Your task to perform on an android device: open a bookmark in the chrome app Image 0: 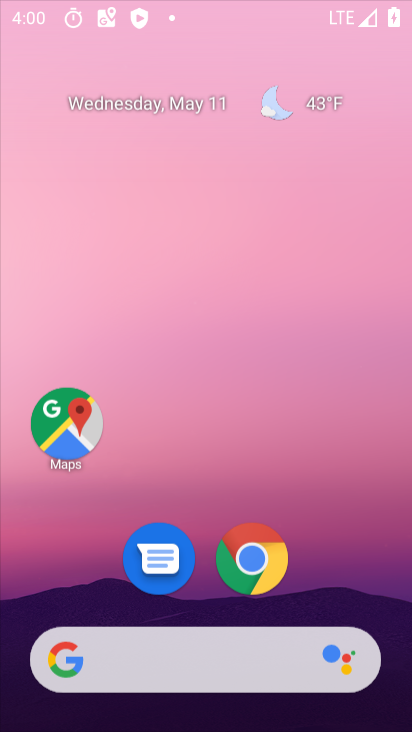
Step 0: click (265, 544)
Your task to perform on an android device: open a bookmark in the chrome app Image 1: 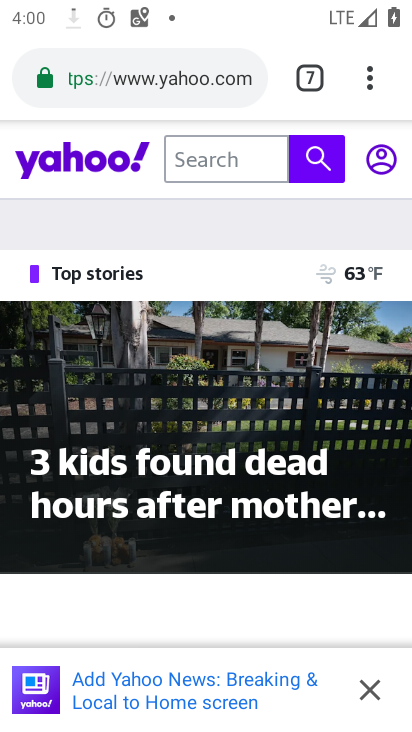
Step 1: click (367, 72)
Your task to perform on an android device: open a bookmark in the chrome app Image 2: 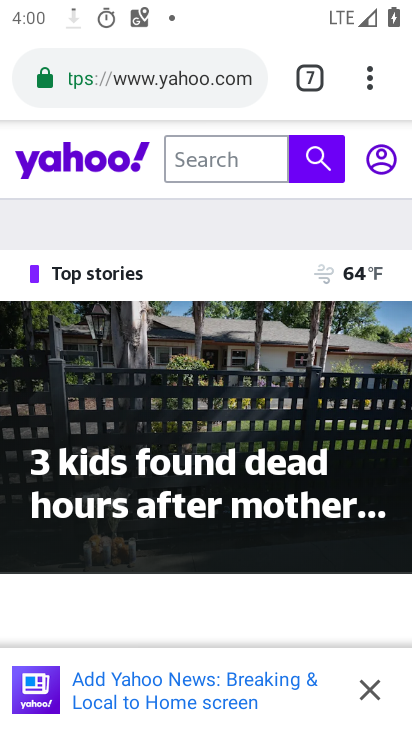
Step 2: click (364, 73)
Your task to perform on an android device: open a bookmark in the chrome app Image 3: 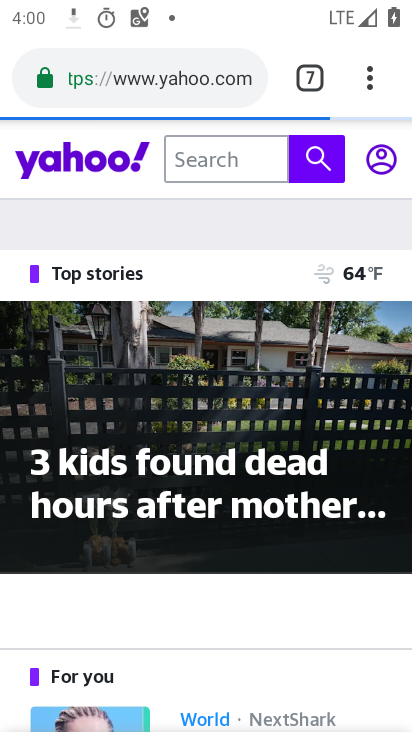
Step 3: click (369, 78)
Your task to perform on an android device: open a bookmark in the chrome app Image 4: 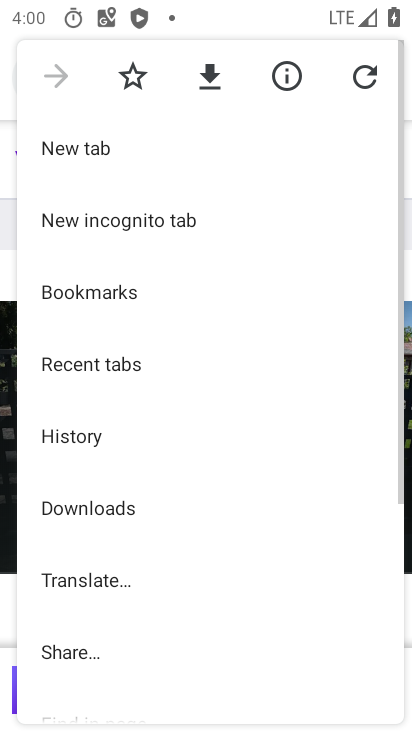
Step 4: click (121, 269)
Your task to perform on an android device: open a bookmark in the chrome app Image 5: 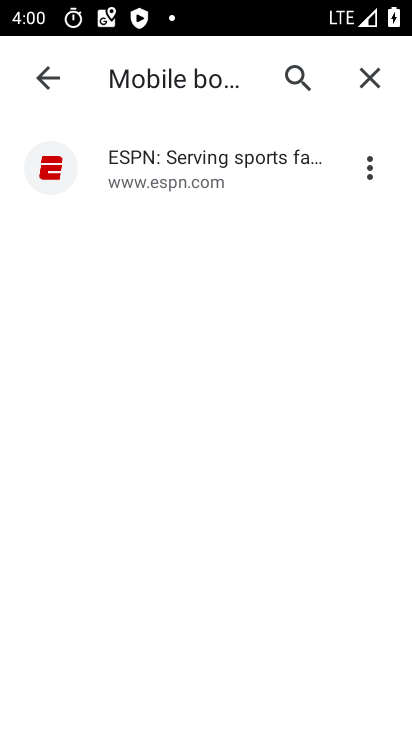
Step 5: click (233, 167)
Your task to perform on an android device: open a bookmark in the chrome app Image 6: 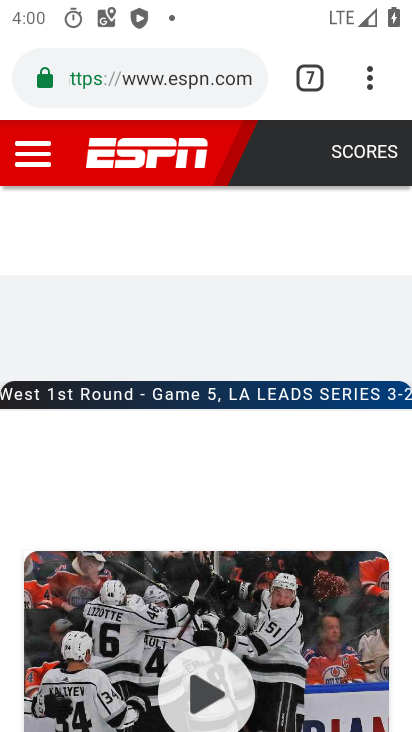
Step 6: task complete